Your task to perform on an android device: Open Google Image 0: 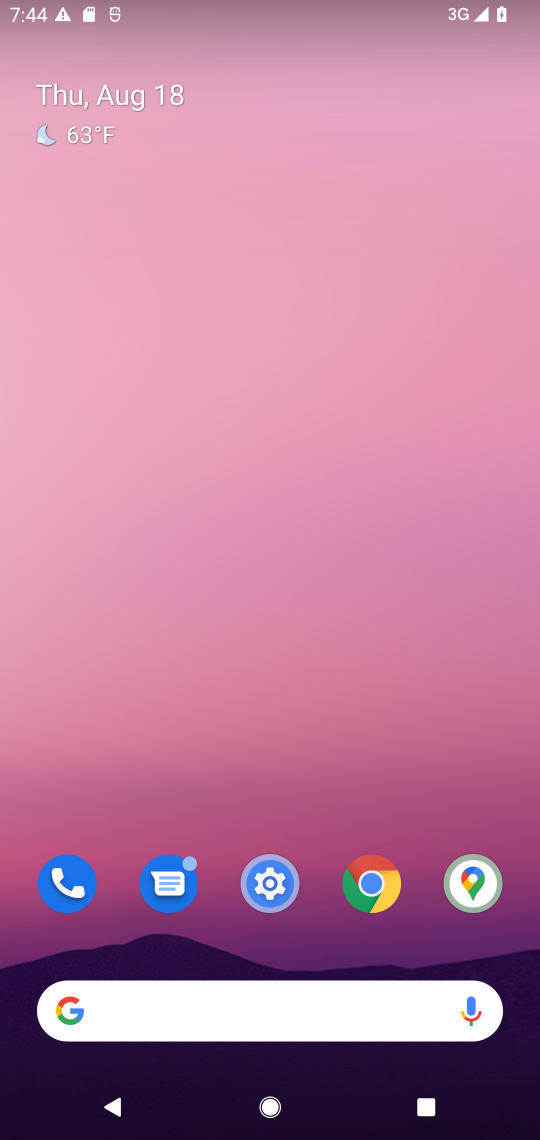
Step 0: click (355, 880)
Your task to perform on an android device: Open Google Image 1: 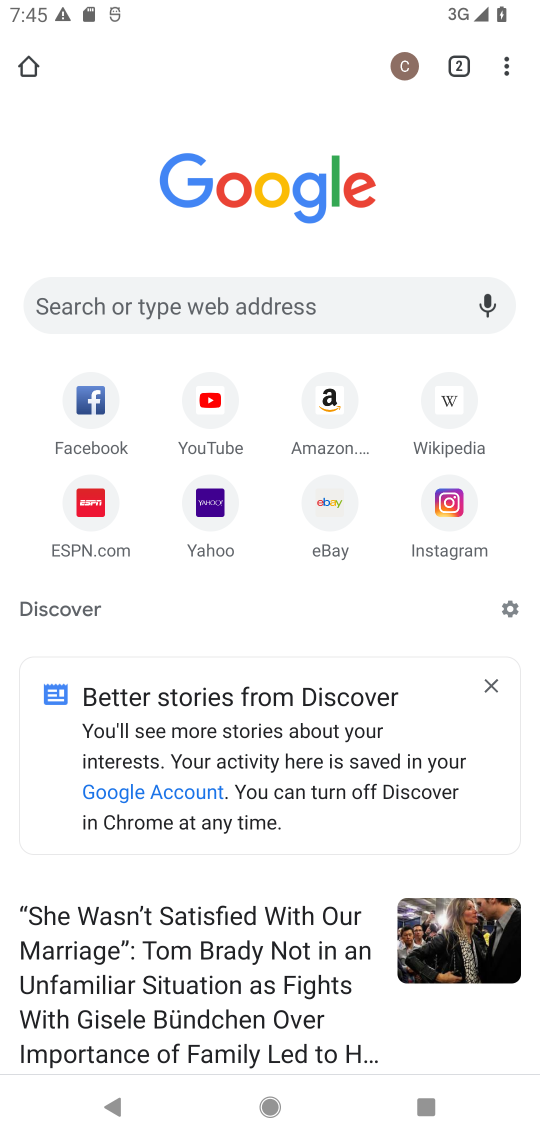
Step 1: task complete